Your task to perform on an android device: Set the phone to "Do not disturb". Image 0: 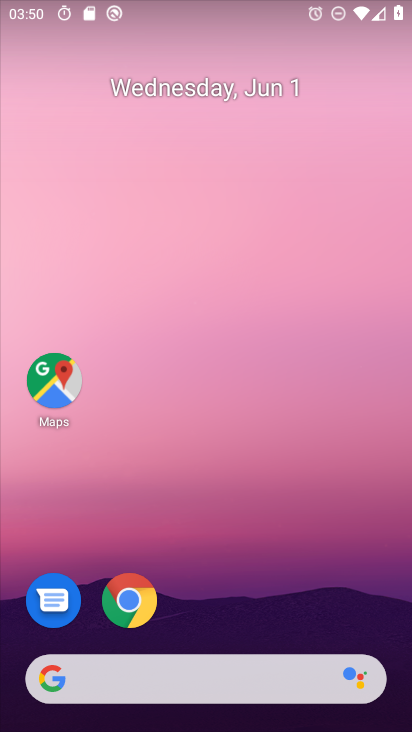
Step 0: drag from (213, 618) to (243, 164)
Your task to perform on an android device: Set the phone to "Do not disturb". Image 1: 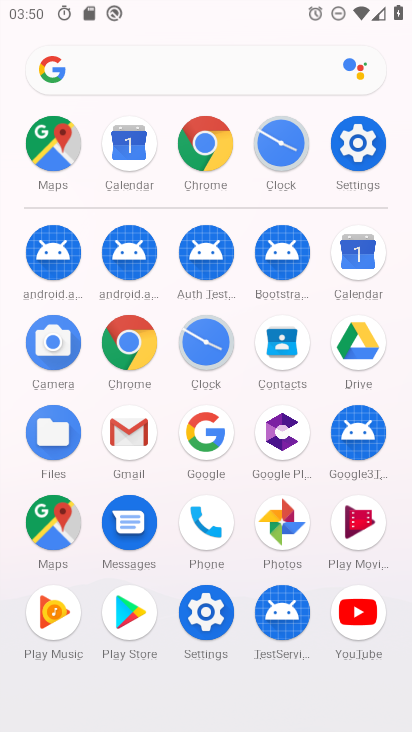
Step 1: click (210, 611)
Your task to perform on an android device: Set the phone to "Do not disturb". Image 2: 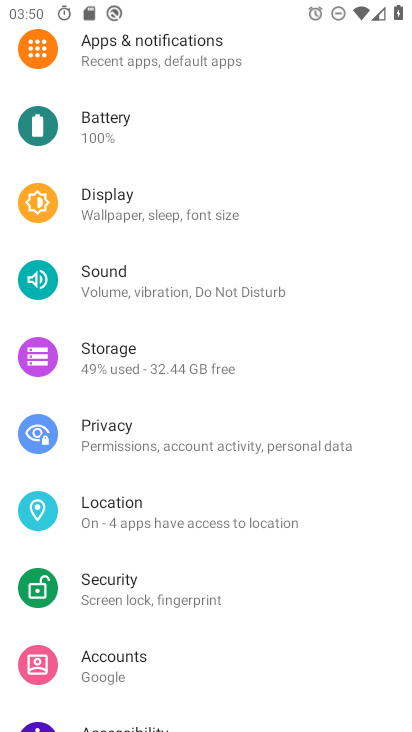
Step 2: click (130, 298)
Your task to perform on an android device: Set the phone to "Do not disturb". Image 3: 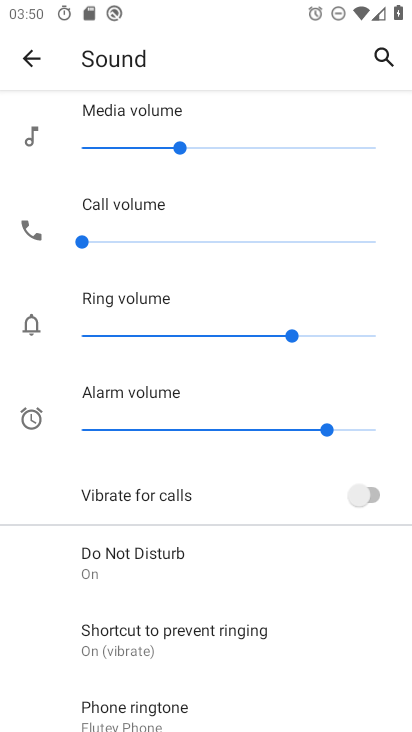
Step 3: drag from (157, 624) to (185, 383)
Your task to perform on an android device: Set the phone to "Do not disturb". Image 4: 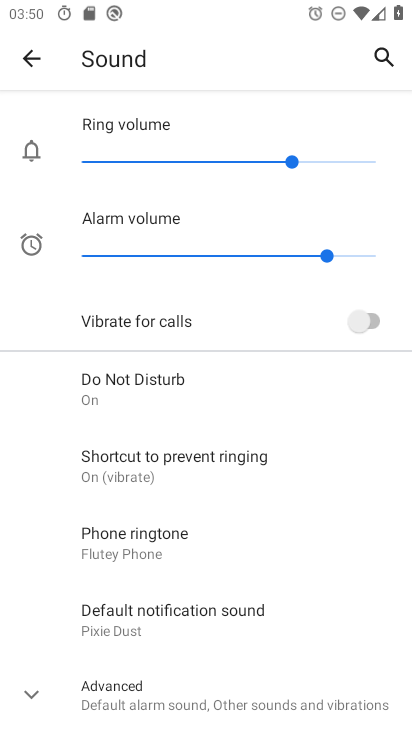
Step 4: click (233, 406)
Your task to perform on an android device: Set the phone to "Do not disturb". Image 5: 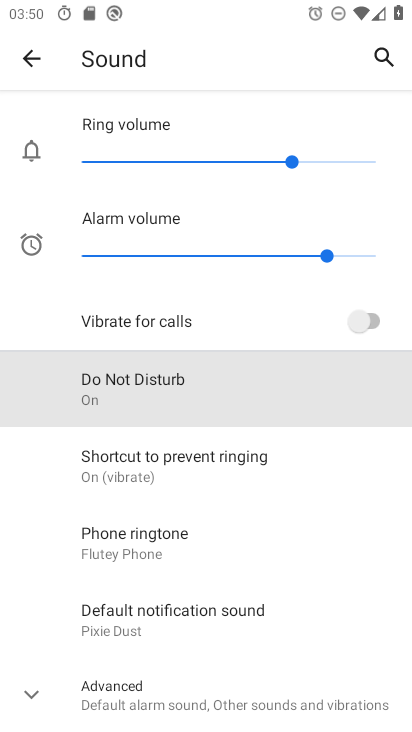
Step 5: click (179, 382)
Your task to perform on an android device: Set the phone to "Do not disturb". Image 6: 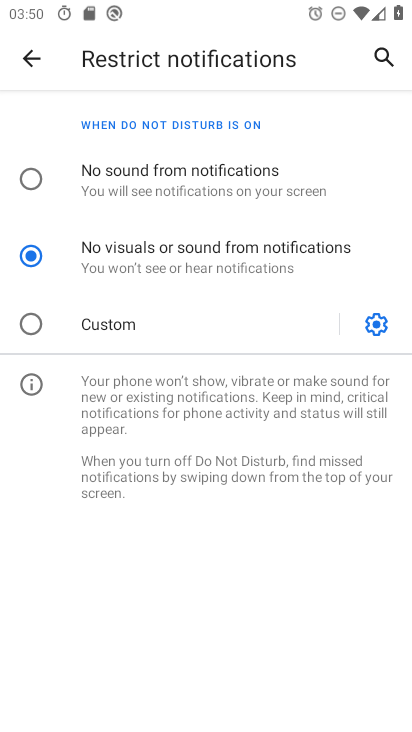
Step 6: task complete